Your task to perform on an android device: Empty the shopping cart on walmart.com. Add "macbook air" to the cart on walmart.com, then select checkout. Image 0: 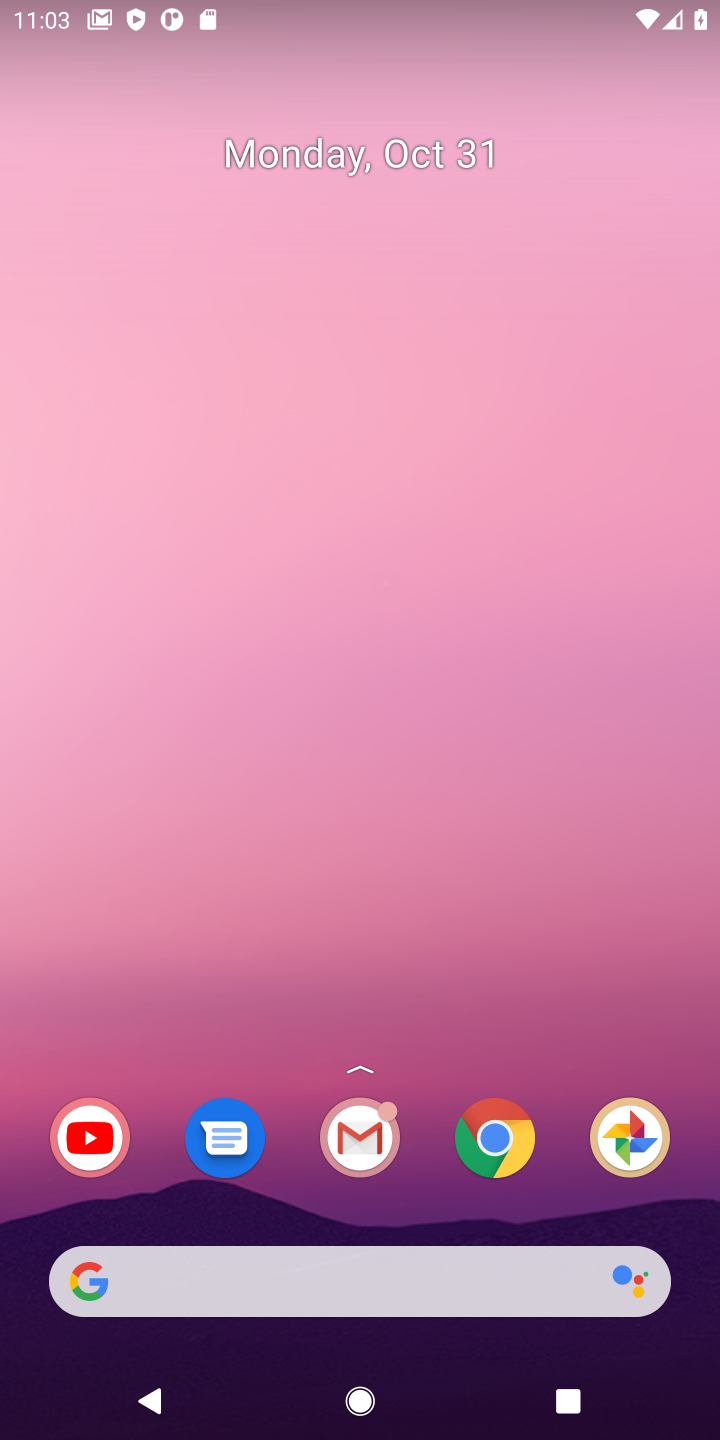
Step 0: click (492, 1147)
Your task to perform on an android device: Empty the shopping cart on walmart.com. Add "macbook air" to the cart on walmart.com, then select checkout. Image 1: 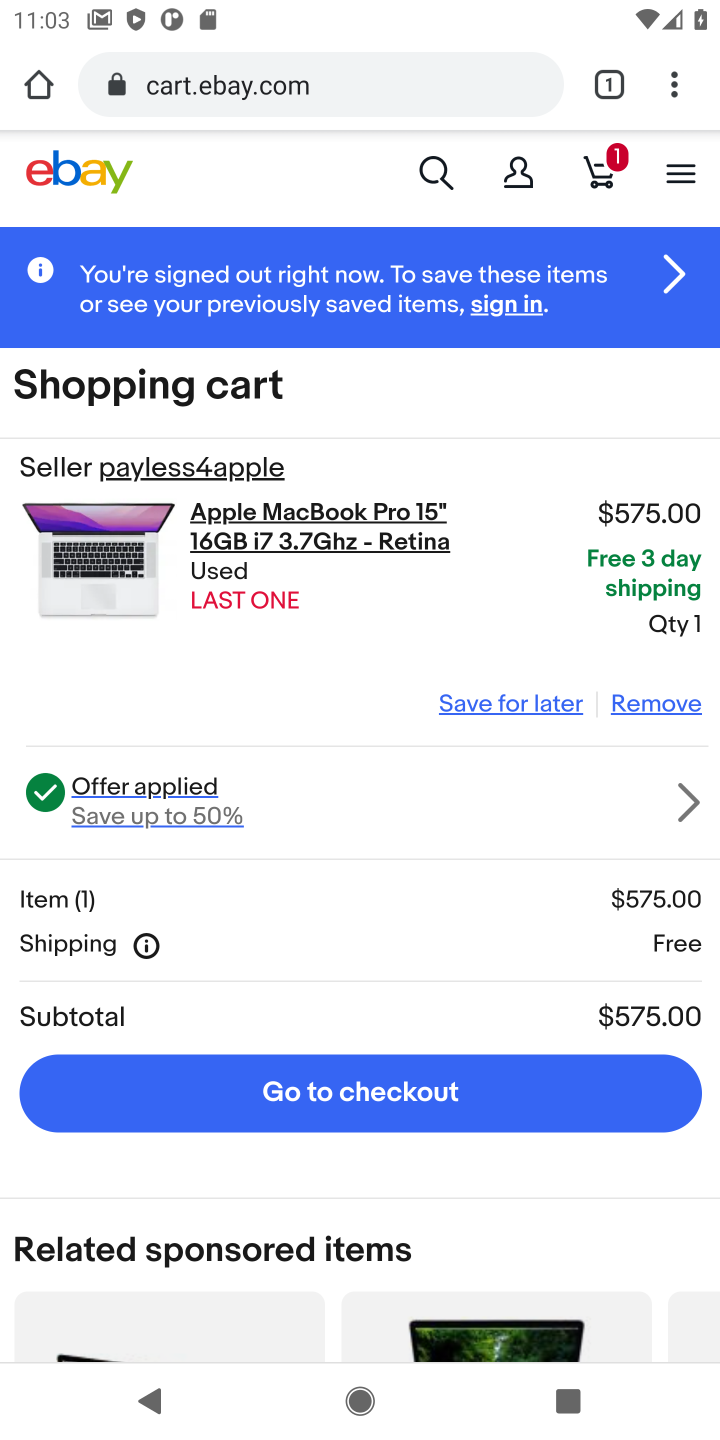
Step 1: click (447, 64)
Your task to perform on an android device: Empty the shopping cart on walmart.com. Add "macbook air" to the cart on walmart.com, then select checkout. Image 2: 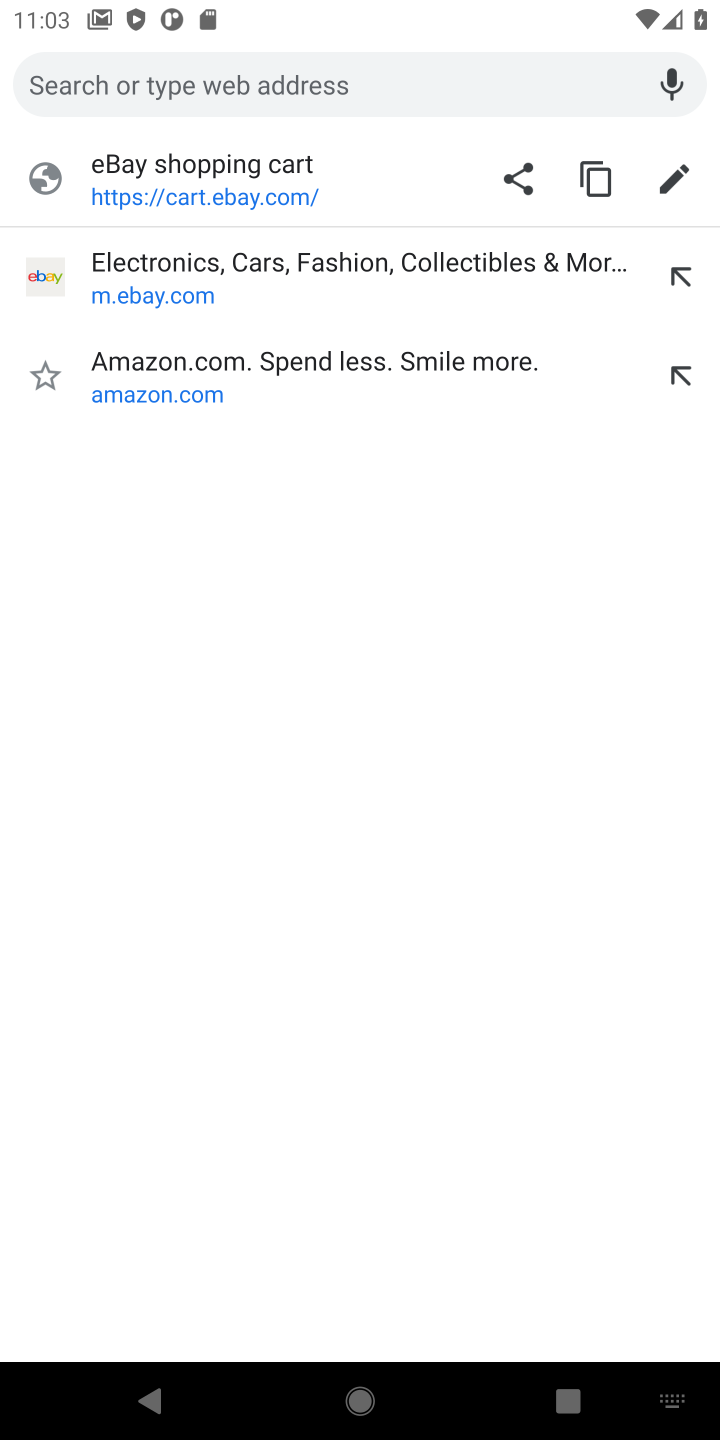
Step 2: type "walmart"
Your task to perform on an android device: Empty the shopping cart on walmart.com. Add "macbook air" to the cart on walmart.com, then select checkout. Image 3: 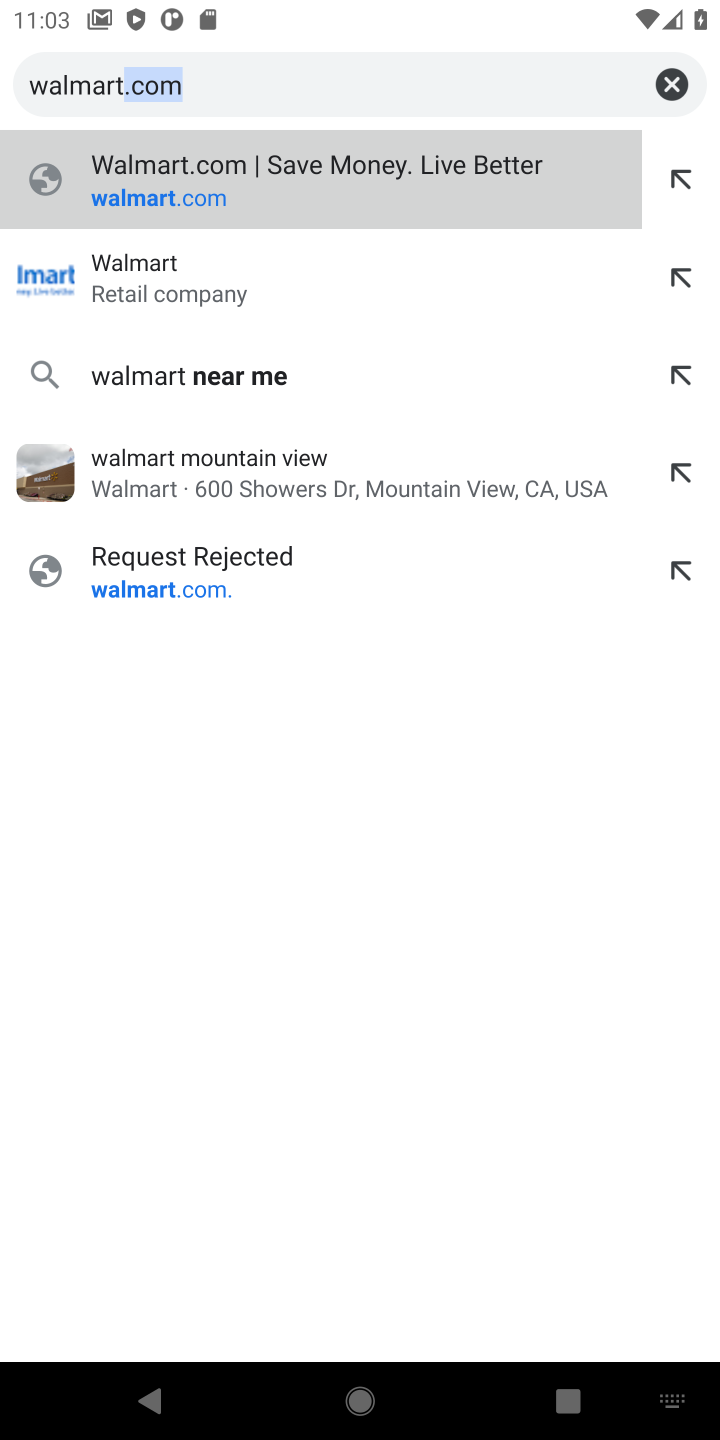
Step 3: click (126, 274)
Your task to perform on an android device: Empty the shopping cart on walmart.com. Add "macbook air" to the cart on walmart.com, then select checkout. Image 4: 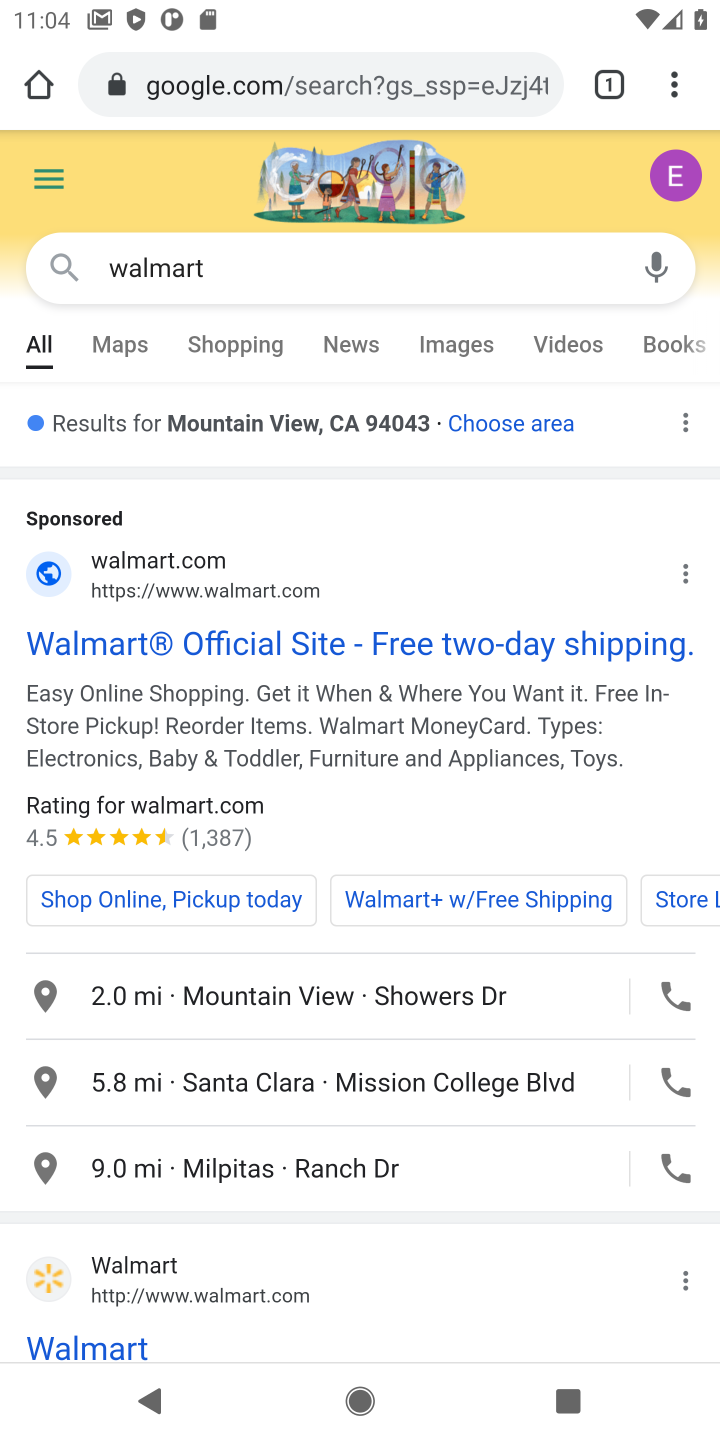
Step 4: click (143, 633)
Your task to perform on an android device: Empty the shopping cart on walmart.com. Add "macbook air" to the cart on walmart.com, then select checkout. Image 5: 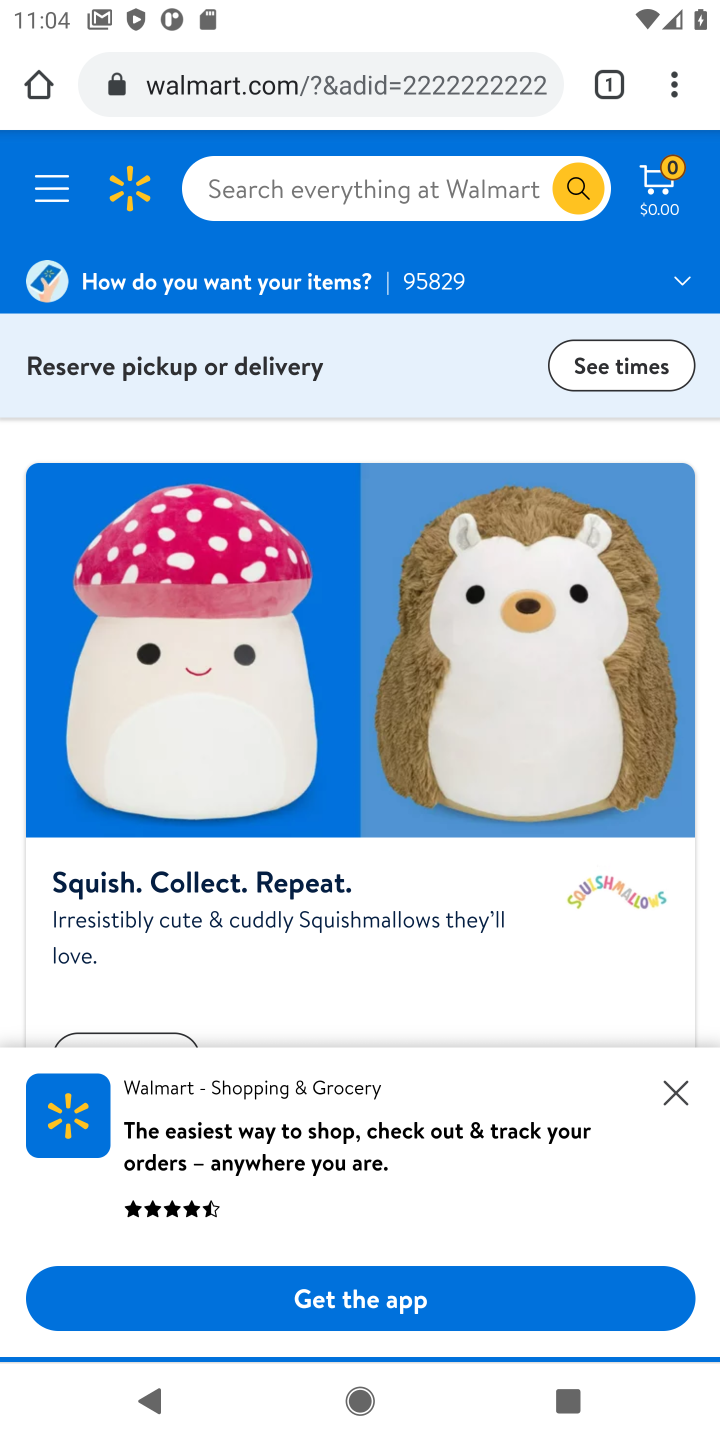
Step 5: click (654, 173)
Your task to perform on an android device: Empty the shopping cart on walmart.com. Add "macbook air" to the cart on walmart.com, then select checkout. Image 6: 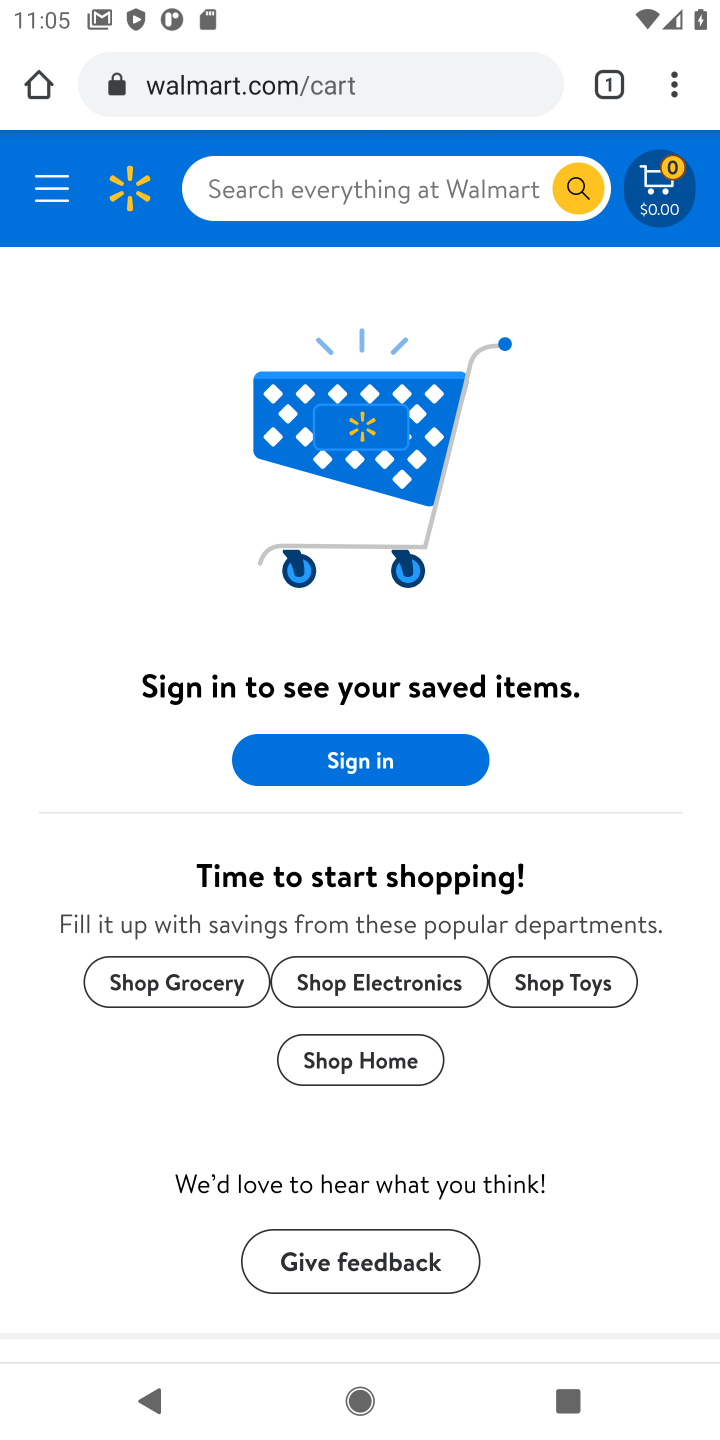
Step 6: click (305, 165)
Your task to perform on an android device: Empty the shopping cart on walmart.com. Add "macbook air" to the cart on walmart.com, then select checkout. Image 7: 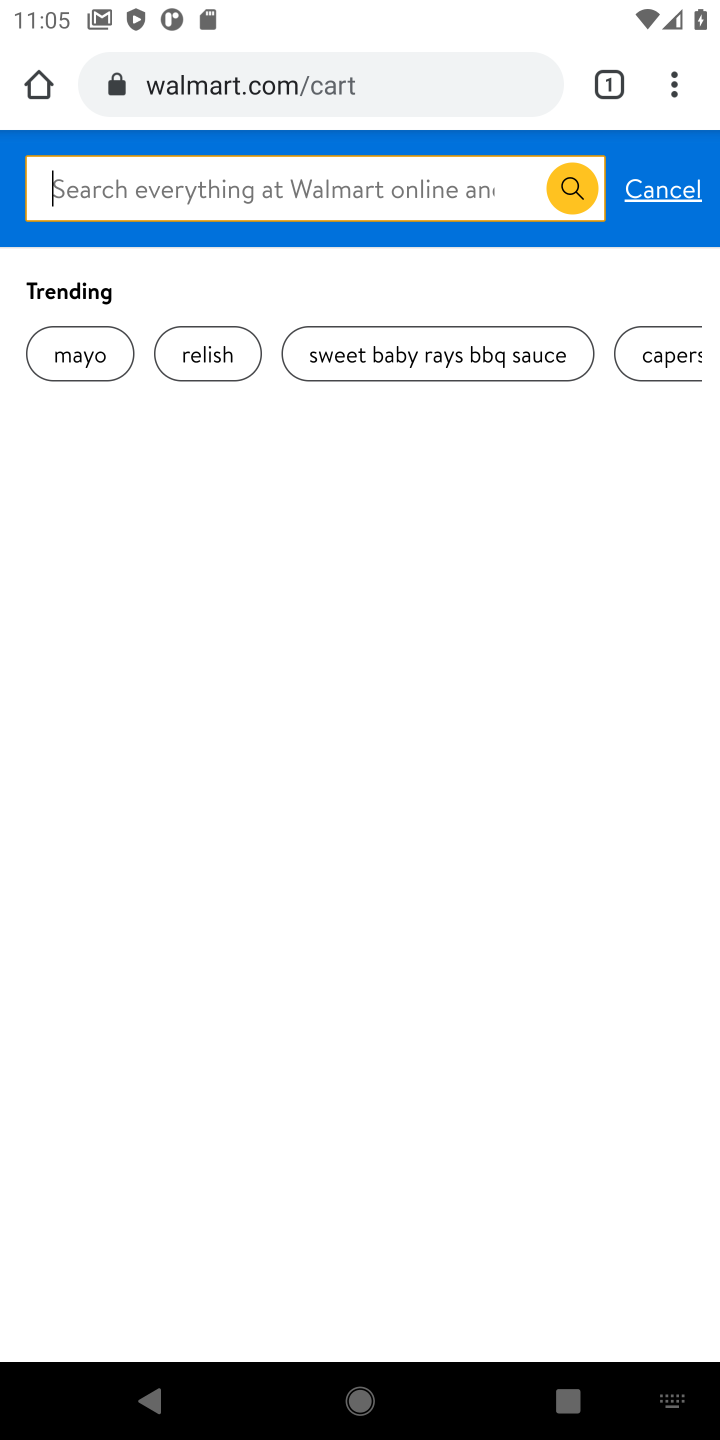
Step 7: type "macbook air"
Your task to perform on an android device: Empty the shopping cart on walmart.com. Add "macbook air" to the cart on walmart.com, then select checkout. Image 8: 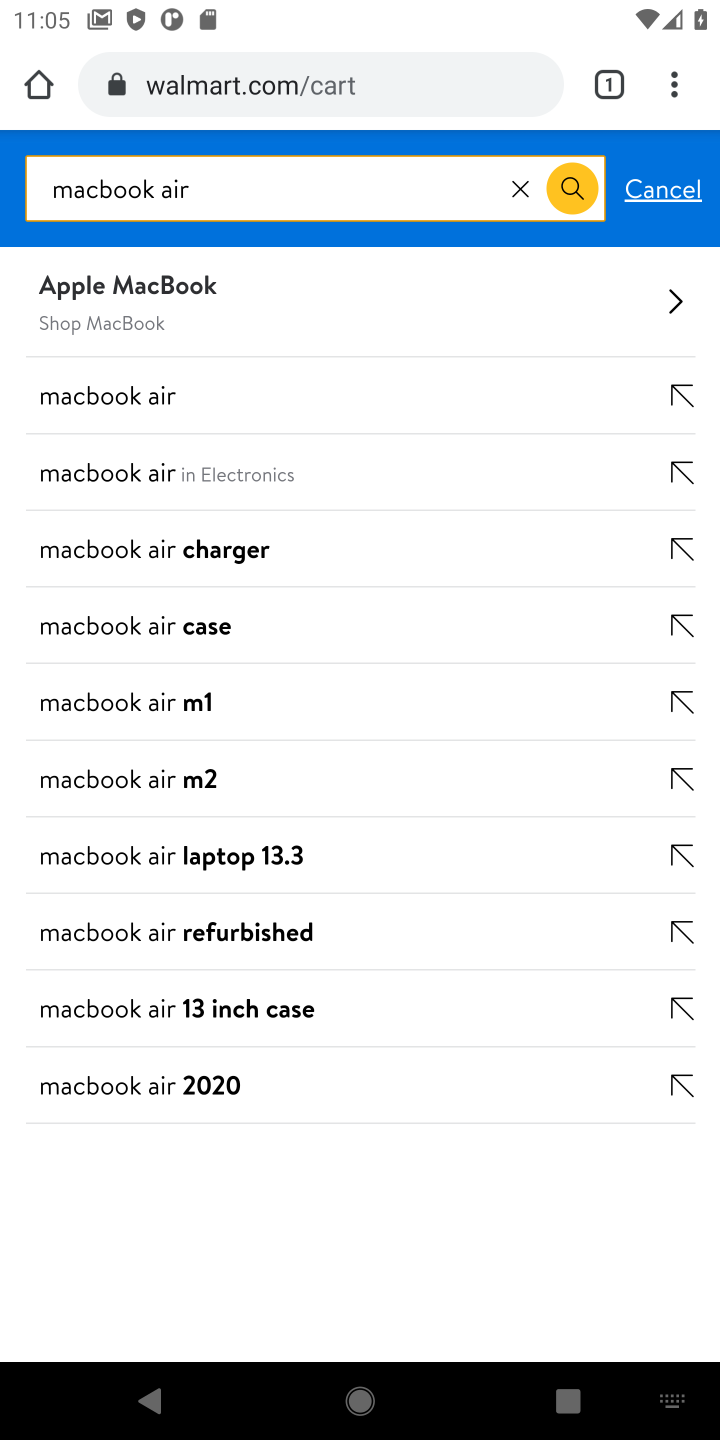
Step 8: click (181, 378)
Your task to perform on an android device: Empty the shopping cart on walmart.com. Add "macbook air" to the cart on walmart.com, then select checkout. Image 9: 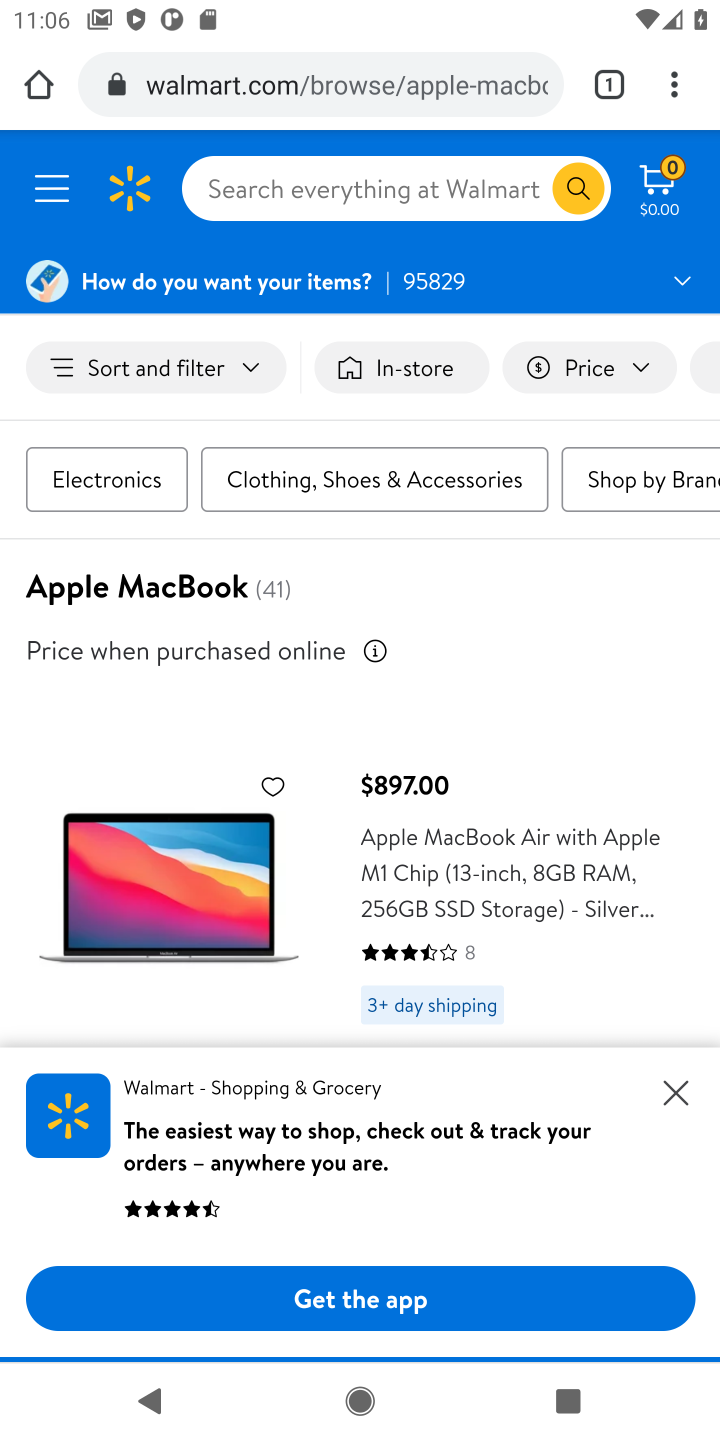
Step 9: click (678, 1086)
Your task to perform on an android device: Empty the shopping cart on walmart.com. Add "macbook air" to the cart on walmart.com, then select checkout. Image 10: 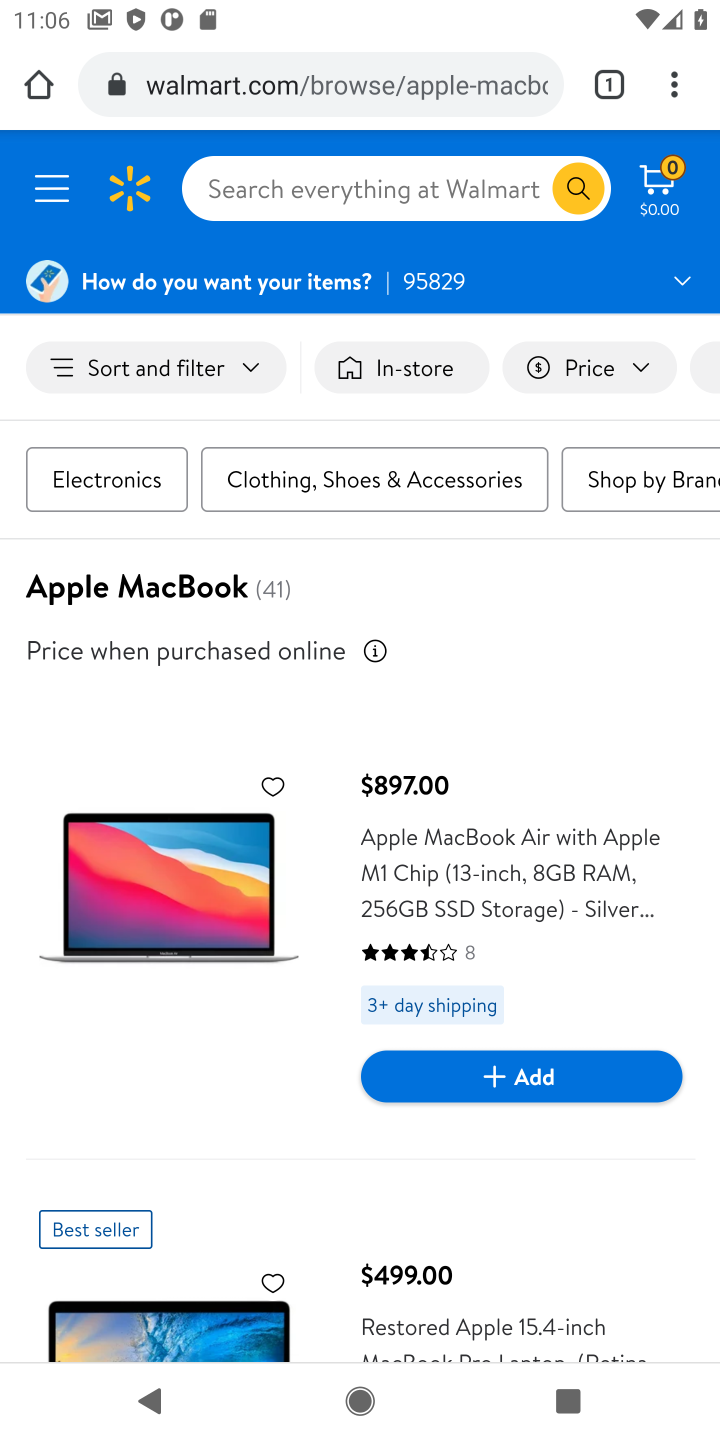
Step 10: click (550, 1068)
Your task to perform on an android device: Empty the shopping cart on walmart.com. Add "macbook air" to the cart on walmart.com, then select checkout. Image 11: 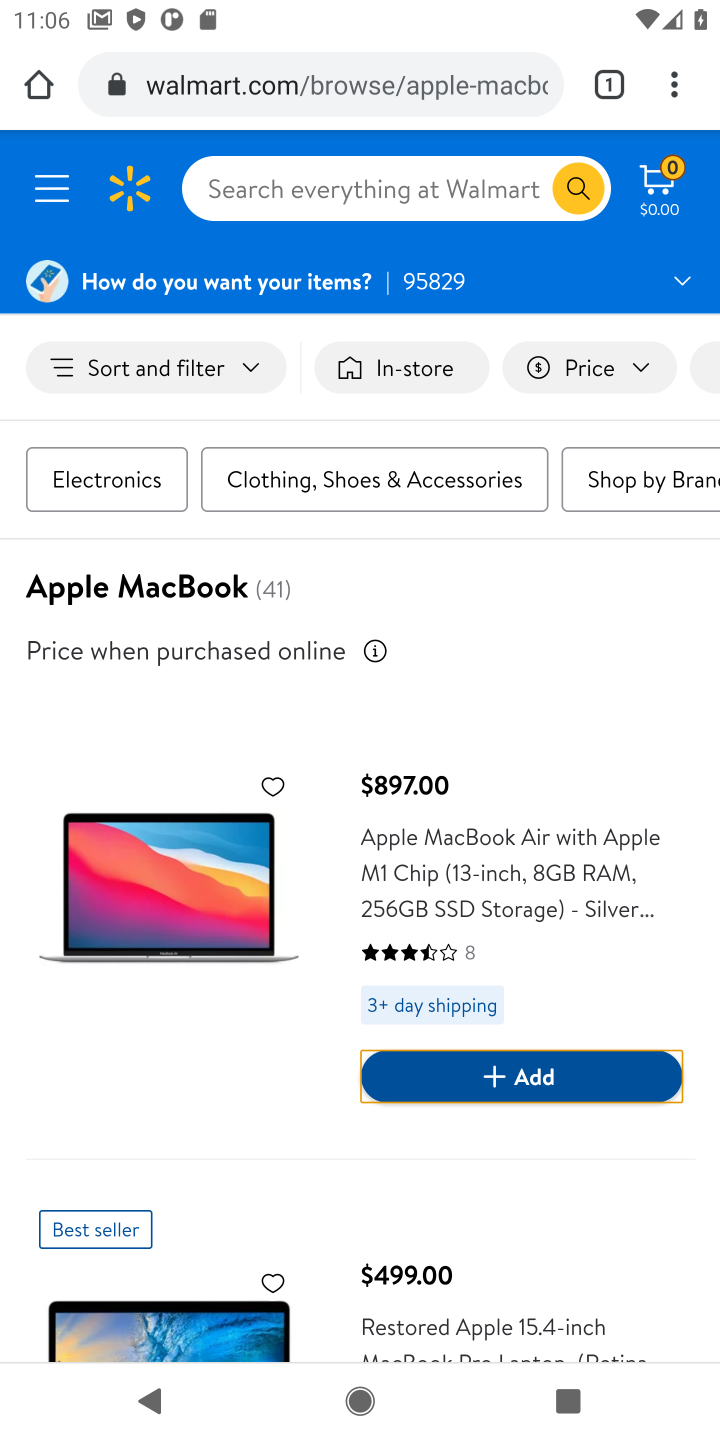
Step 11: click (533, 1077)
Your task to perform on an android device: Empty the shopping cart on walmart.com. Add "macbook air" to the cart on walmart.com, then select checkout. Image 12: 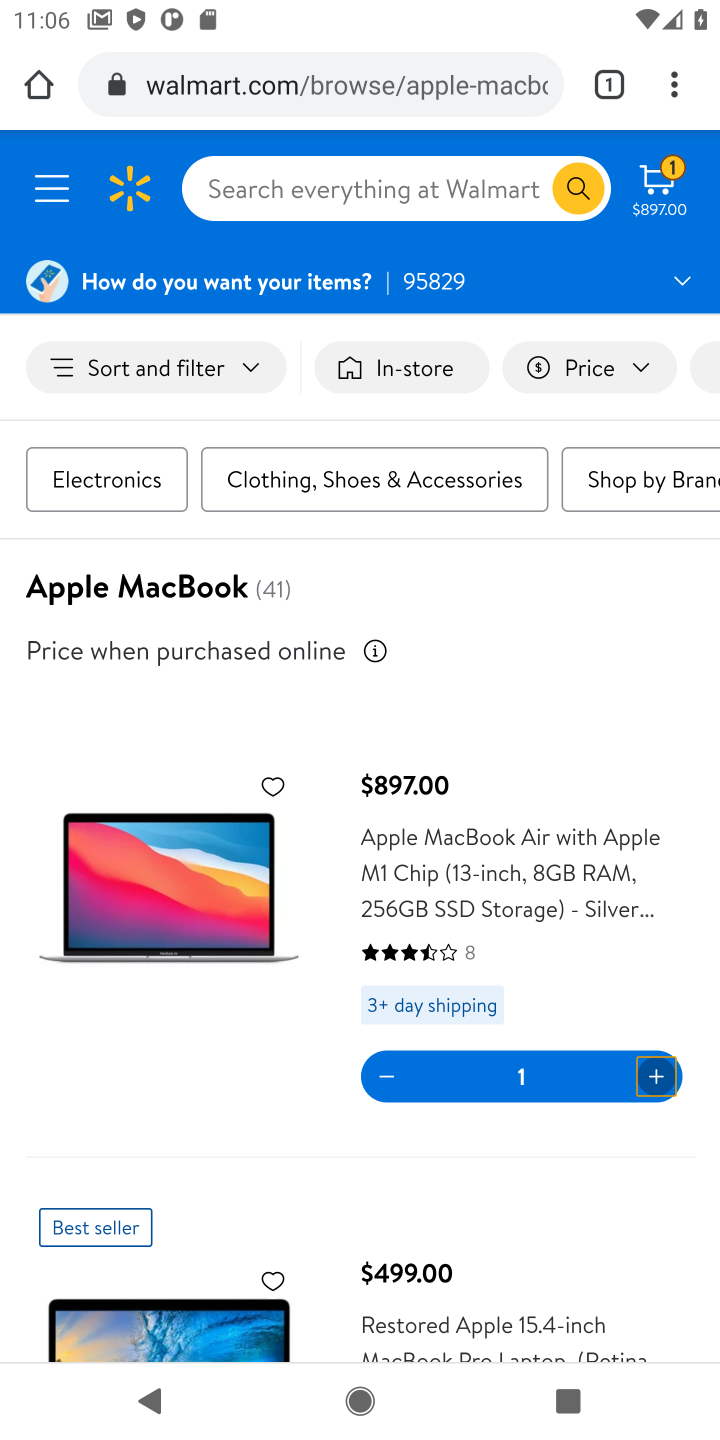
Step 12: click (662, 175)
Your task to perform on an android device: Empty the shopping cart on walmart.com. Add "macbook air" to the cart on walmart.com, then select checkout. Image 13: 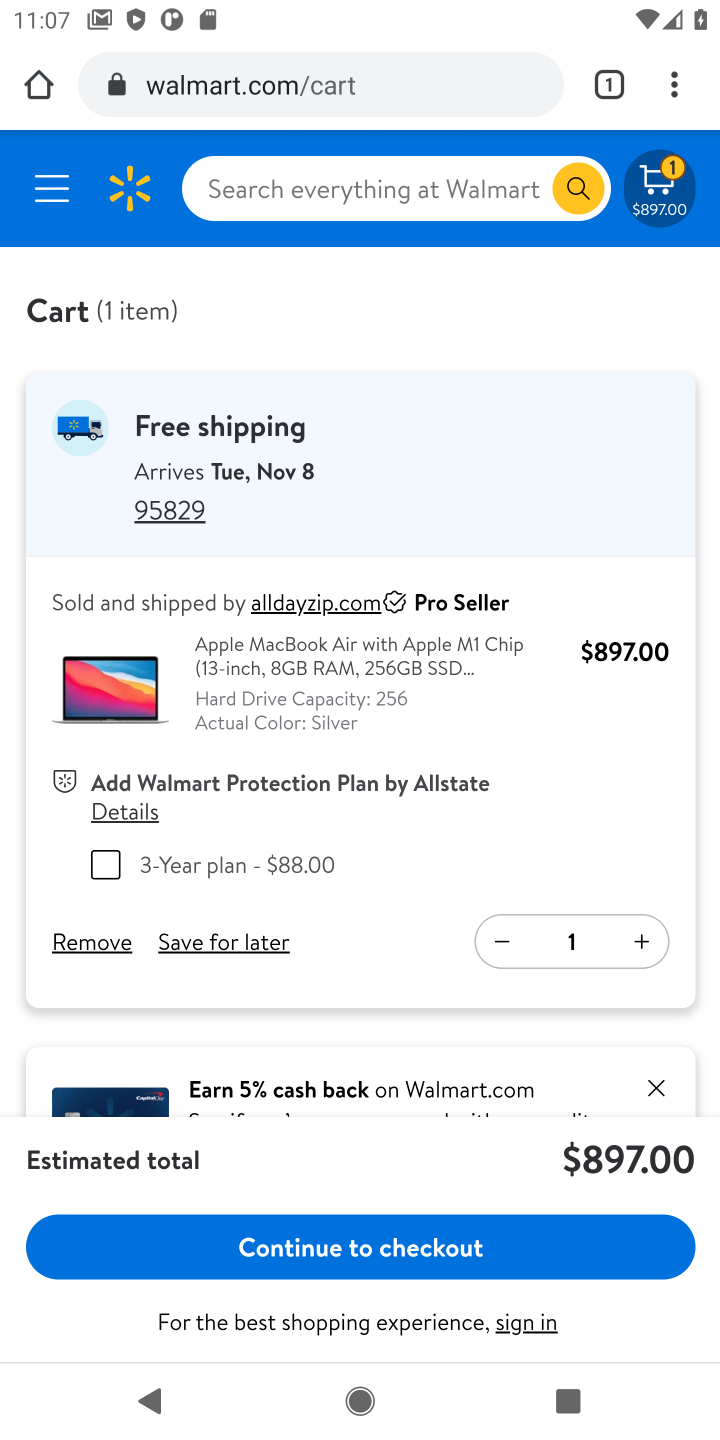
Step 13: click (330, 1269)
Your task to perform on an android device: Empty the shopping cart on walmart.com. Add "macbook air" to the cart on walmart.com, then select checkout. Image 14: 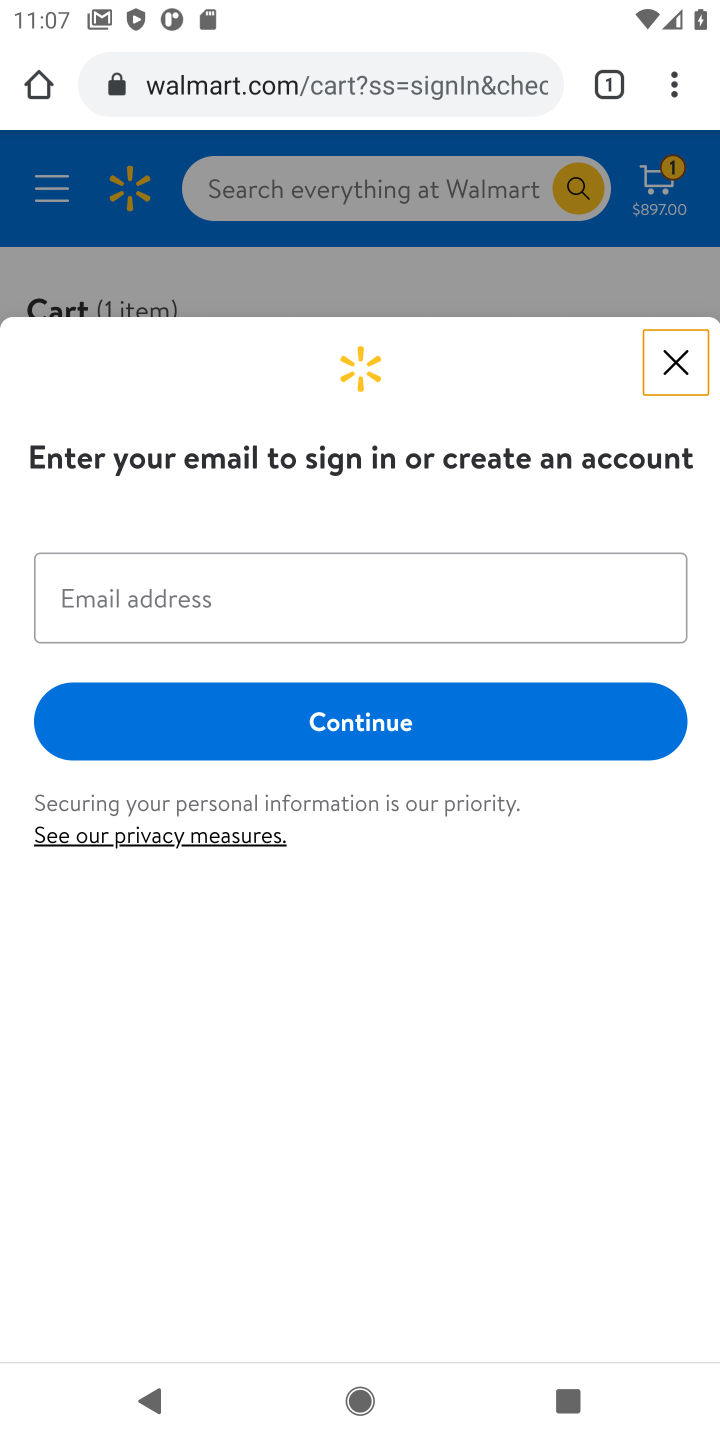
Step 14: task complete